Your task to perform on an android device: turn on data saver in the chrome app Image 0: 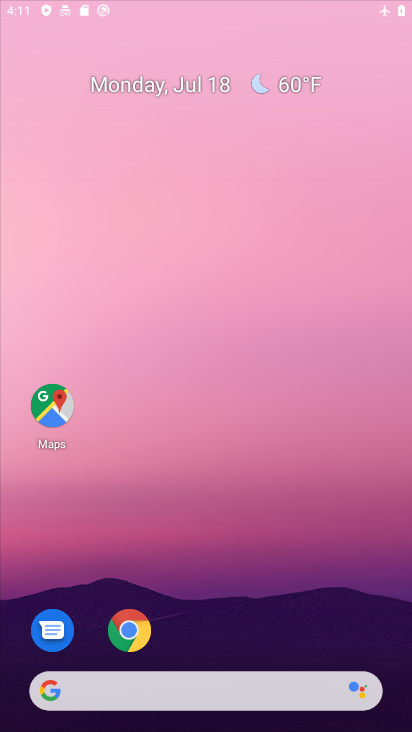
Step 0: click (148, 106)
Your task to perform on an android device: turn on data saver in the chrome app Image 1: 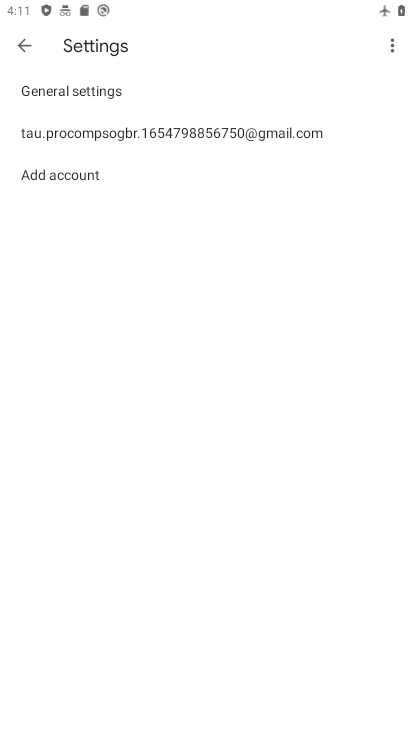
Step 1: click (23, 37)
Your task to perform on an android device: turn on data saver in the chrome app Image 2: 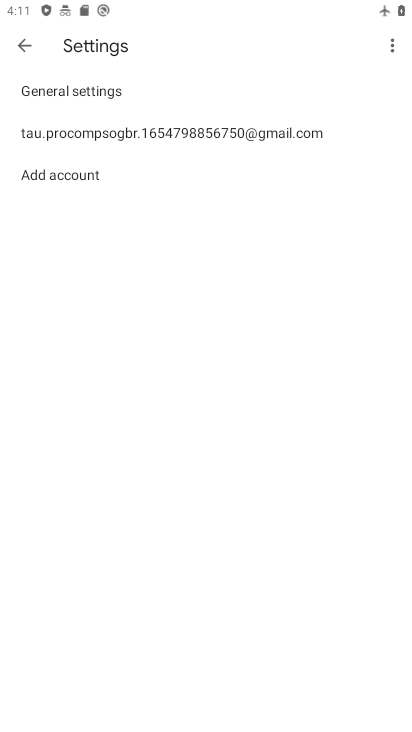
Step 2: click (22, 43)
Your task to perform on an android device: turn on data saver in the chrome app Image 3: 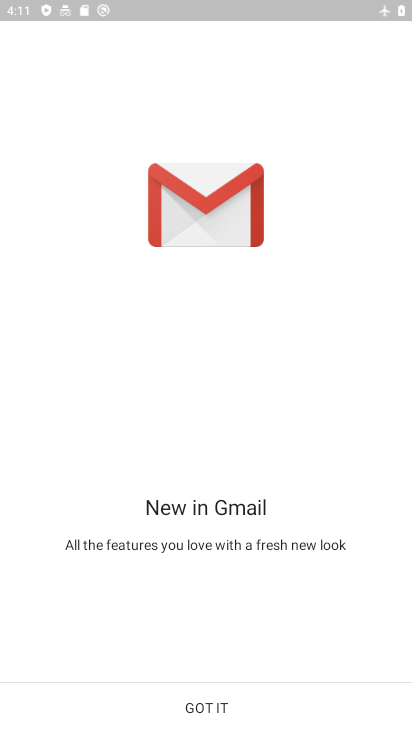
Step 3: press back button
Your task to perform on an android device: turn on data saver in the chrome app Image 4: 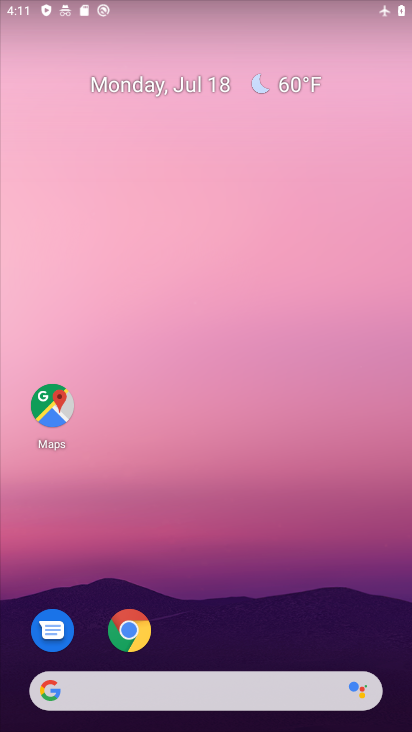
Step 4: drag from (269, 633) to (165, 17)
Your task to perform on an android device: turn on data saver in the chrome app Image 5: 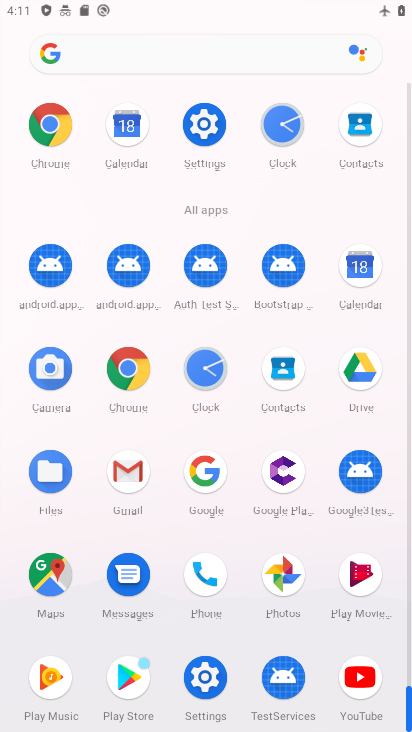
Step 5: click (48, 111)
Your task to perform on an android device: turn on data saver in the chrome app Image 6: 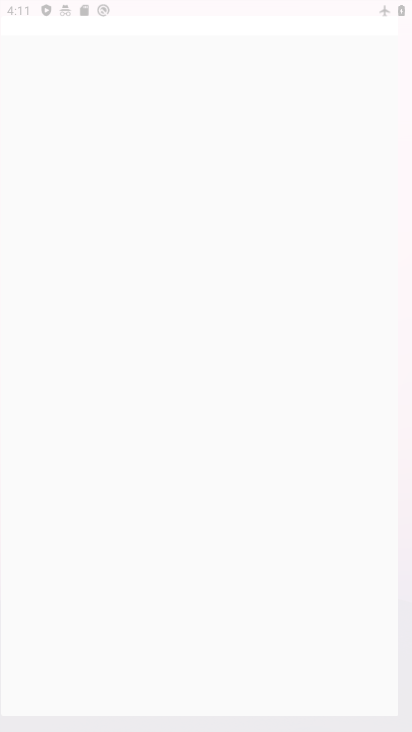
Step 6: click (49, 116)
Your task to perform on an android device: turn on data saver in the chrome app Image 7: 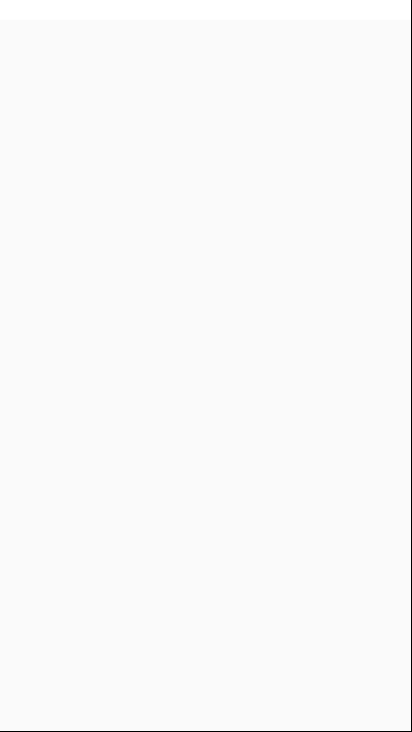
Step 7: click (49, 116)
Your task to perform on an android device: turn on data saver in the chrome app Image 8: 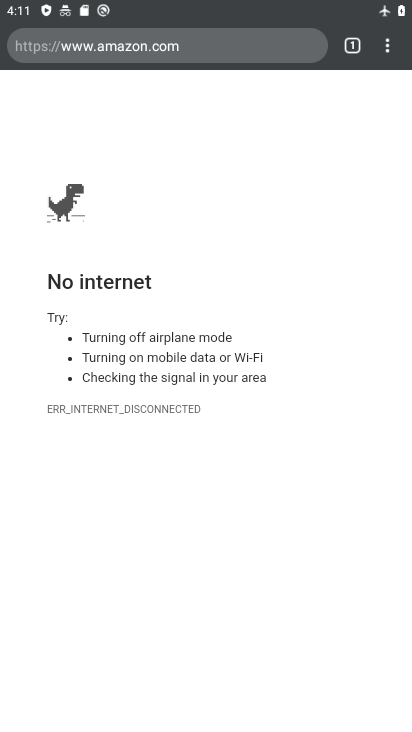
Step 8: task complete